Your task to perform on an android device: move an email to a new category in the gmail app Image 0: 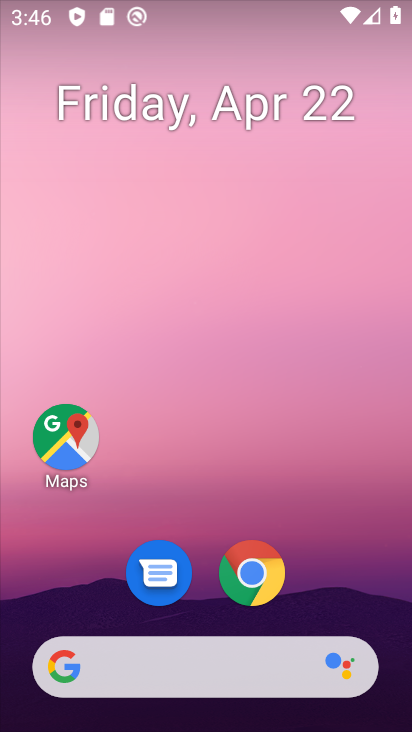
Step 0: drag from (244, 652) to (240, 257)
Your task to perform on an android device: move an email to a new category in the gmail app Image 1: 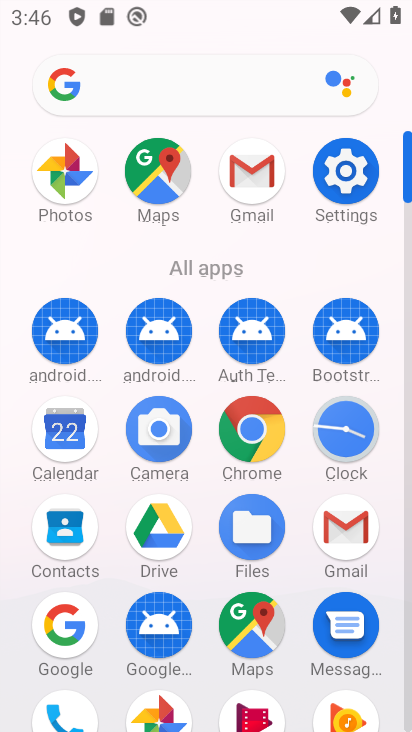
Step 1: click (71, 636)
Your task to perform on an android device: move an email to a new category in the gmail app Image 2: 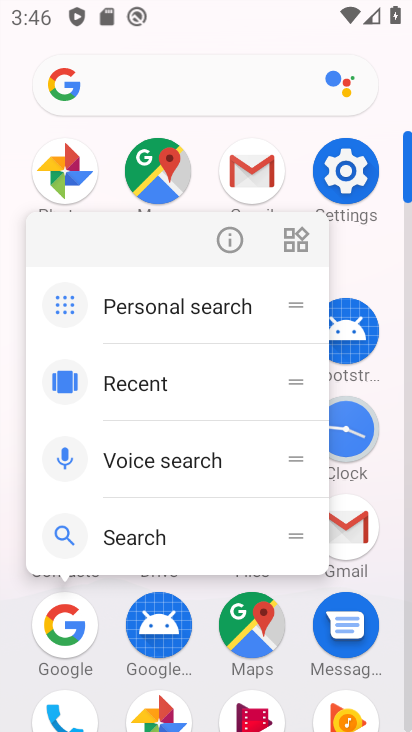
Step 2: click (71, 636)
Your task to perform on an android device: move an email to a new category in the gmail app Image 3: 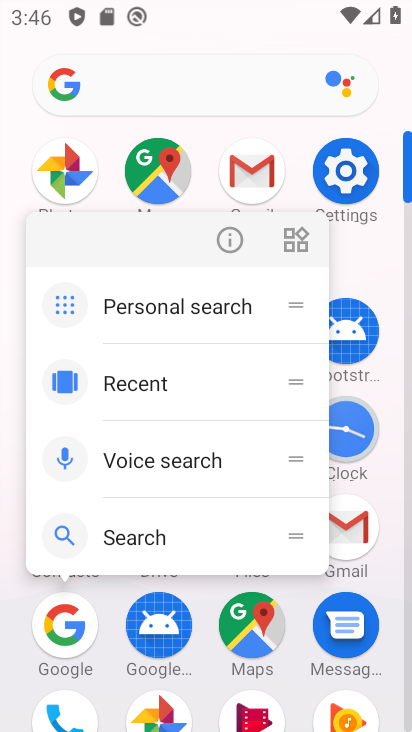
Step 3: click (75, 633)
Your task to perform on an android device: move an email to a new category in the gmail app Image 4: 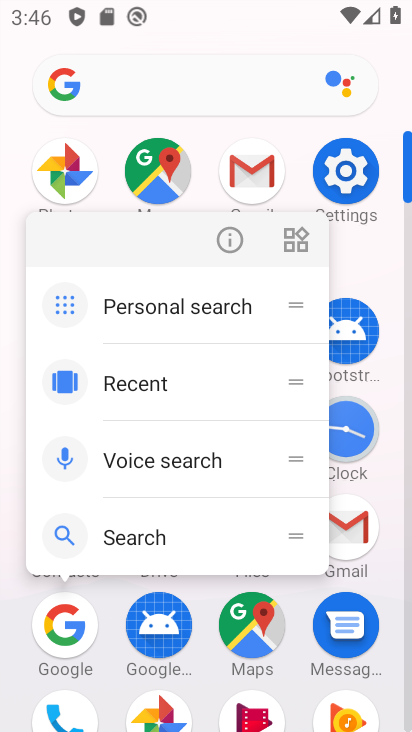
Step 4: click (75, 633)
Your task to perform on an android device: move an email to a new category in the gmail app Image 5: 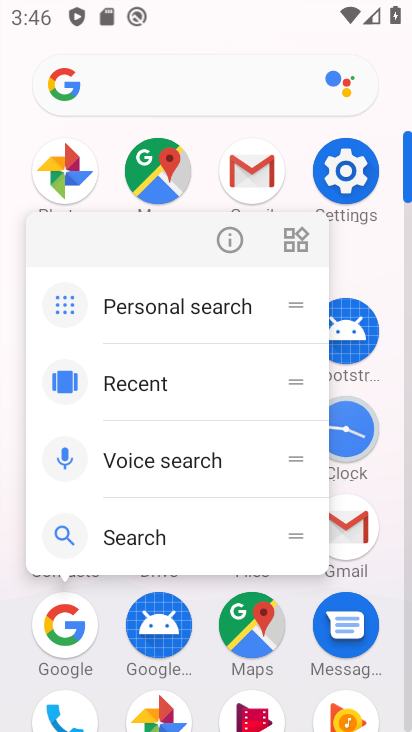
Step 5: click (75, 633)
Your task to perform on an android device: move an email to a new category in the gmail app Image 6: 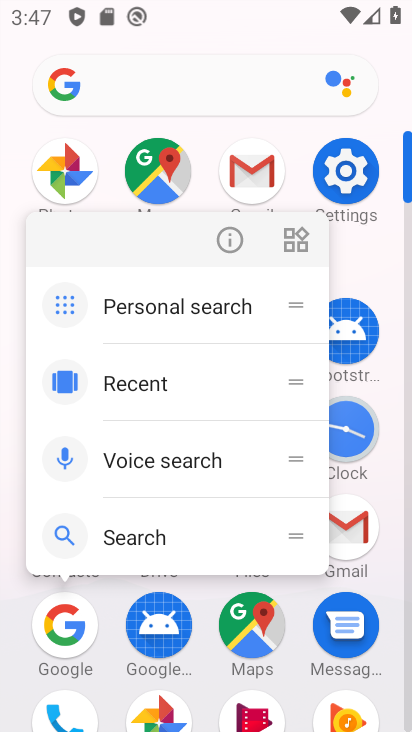
Step 6: click (63, 628)
Your task to perform on an android device: move an email to a new category in the gmail app Image 7: 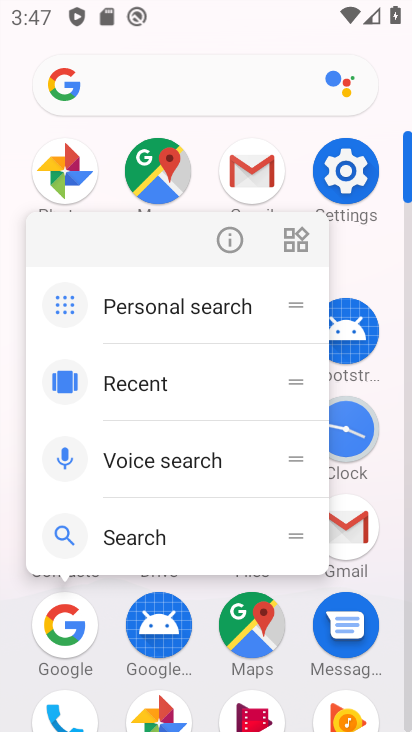
Step 7: click (63, 628)
Your task to perform on an android device: move an email to a new category in the gmail app Image 8: 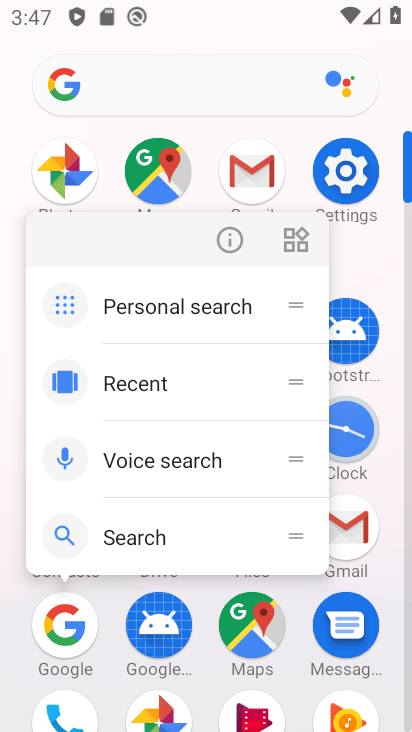
Step 8: click (63, 628)
Your task to perform on an android device: move an email to a new category in the gmail app Image 9: 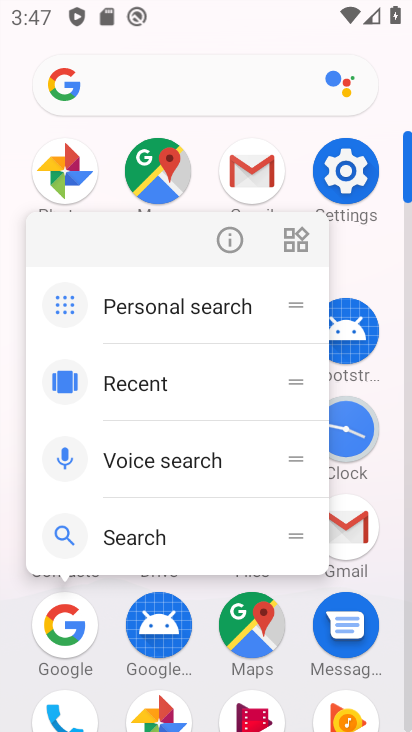
Step 9: click (63, 628)
Your task to perform on an android device: move an email to a new category in the gmail app Image 10: 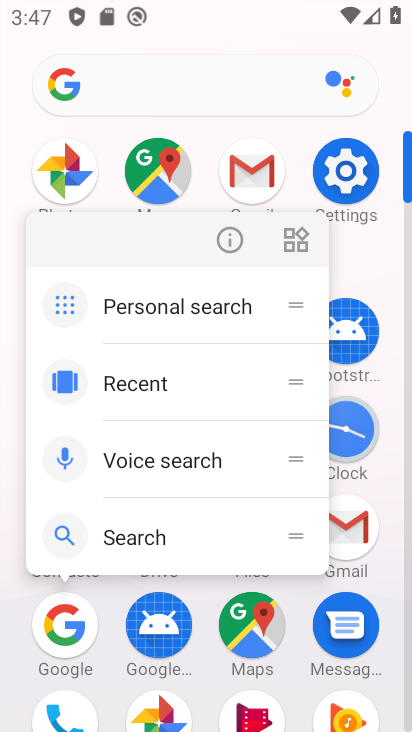
Step 10: click (63, 628)
Your task to perform on an android device: move an email to a new category in the gmail app Image 11: 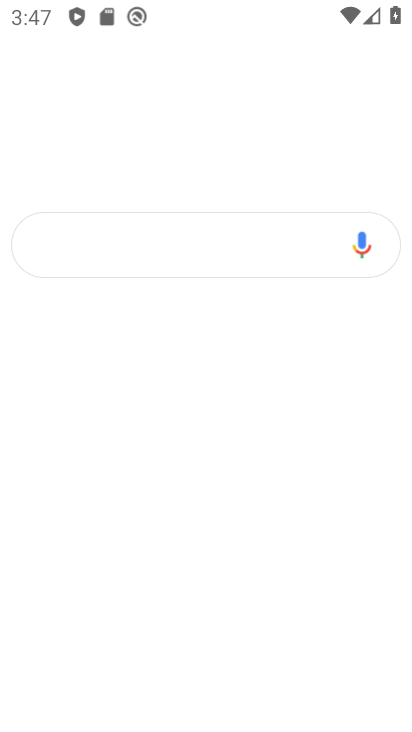
Step 11: click (63, 628)
Your task to perform on an android device: move an email to a new category in the gmail app Image 12: 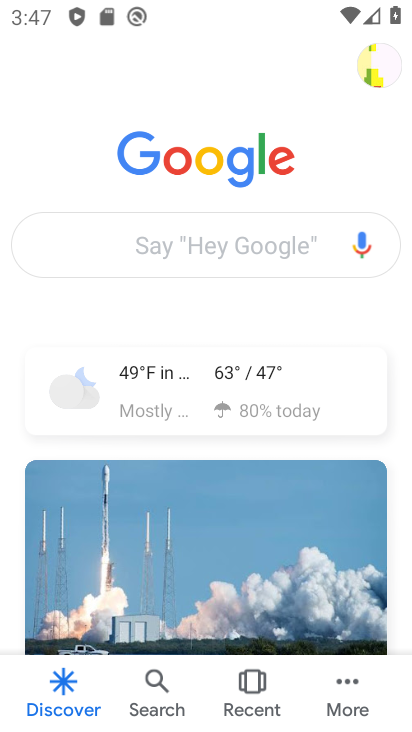
Step 12: task complete